Your task to perform on an android device: Search for the best rated mattress topper on Target. Image 0: 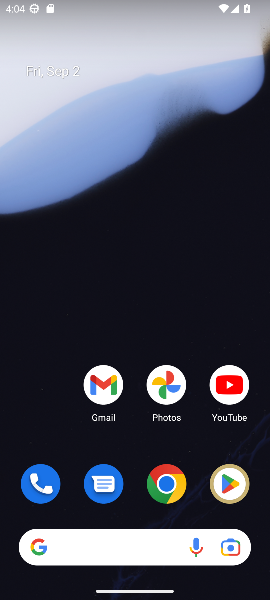
Step 0: click (165, 477)
Your task to perform on an android device: Search for the best rated mattress topper on Target. Image 1: 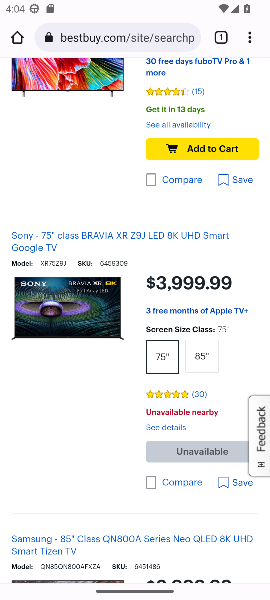
Step 1: drag from (236, 128) to (192, 487)
Your task to perform on an android device: Search for the best rated mattress topper on Target. Image 2: 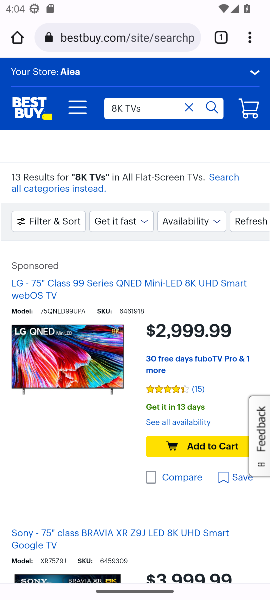
Step 2: click (127, 33)
Your task to perform on an android device: Search for the best rated mattress topper on Target. Image 3: 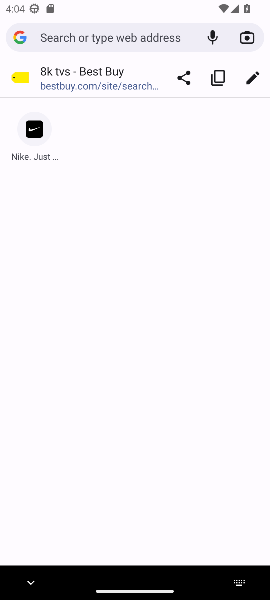
Step 3: type "Target"
Your task to perform on an android device: Search for the best rated mattress topper on Target. Image 4: 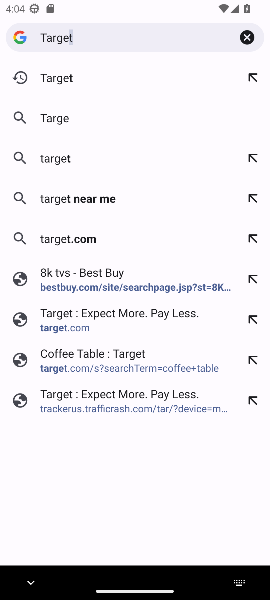
Step 4: press enter
Your task to perform on an android device: Search for the best rated mattress topper on Target. Image 5: 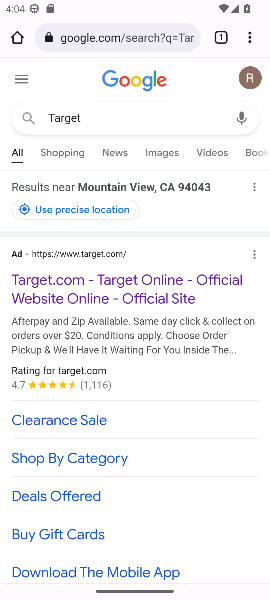
Step 5: click (125, 282)
Your task to perform on an android device: Search for the best rated mattress topper on Target. Image 6: 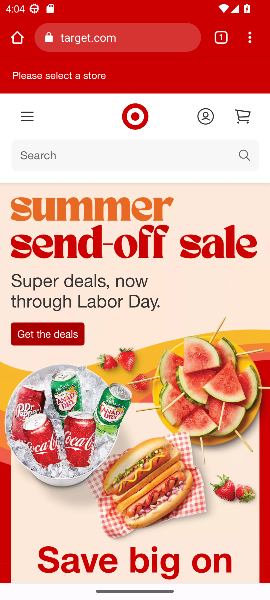
Step 6: click (241, 155)
Your task to perform on an android device: Search for the best rated mattress topper on Target. Image 7: 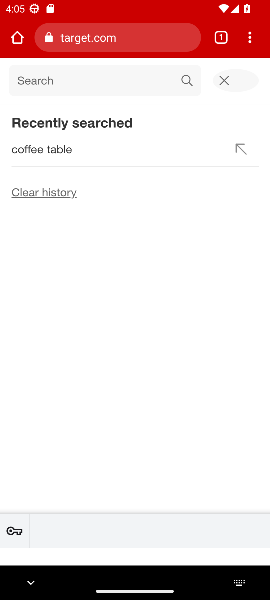
Step 7: type " mattress topper"
Your task to perform on an android device: Search for the best rated mattress topper on Target. Image 8: 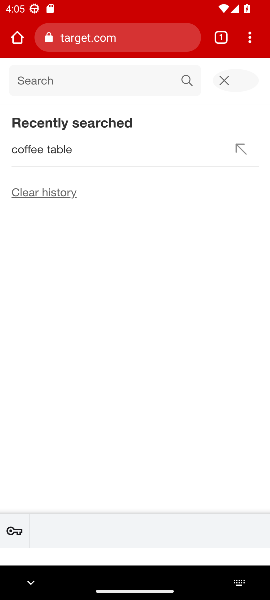
Step 8: press enter
Your task to perform on an android device: Search for the best rated mattress topper on Target. Image 9: 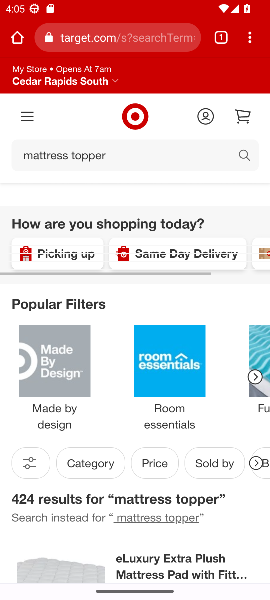
Step 9: task complete